Your task to perform on an android device: turn off javascript in the chrome app Image 0: 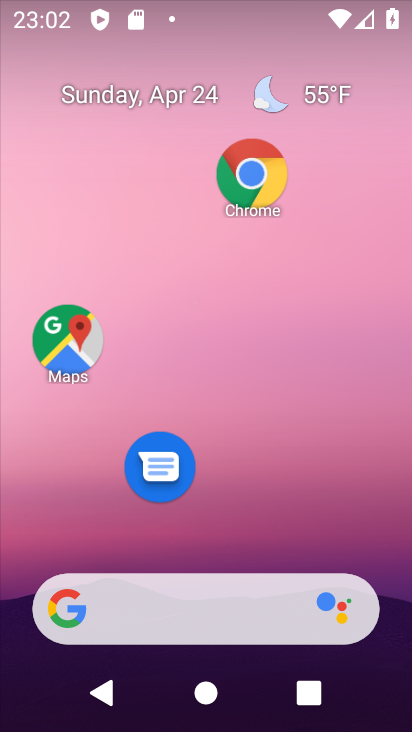
Step 0: click (248, 177)
Your task to perform on an android device: turn off javascript in the chrome app Image 1: 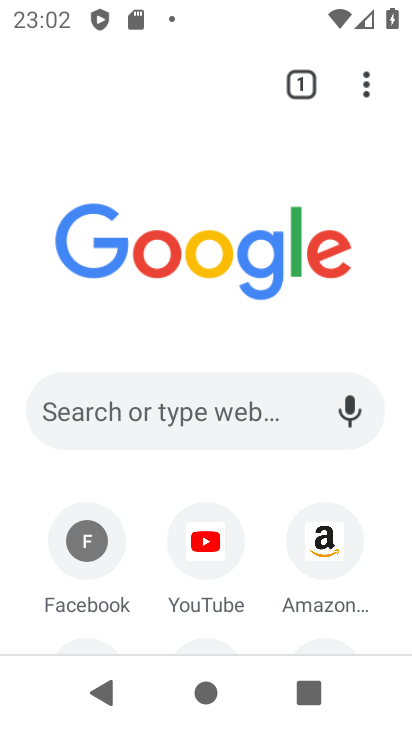
Step 1: click (359, 85)
Your task to perform on an android device: turn off javascript in the chrome app Image 2: 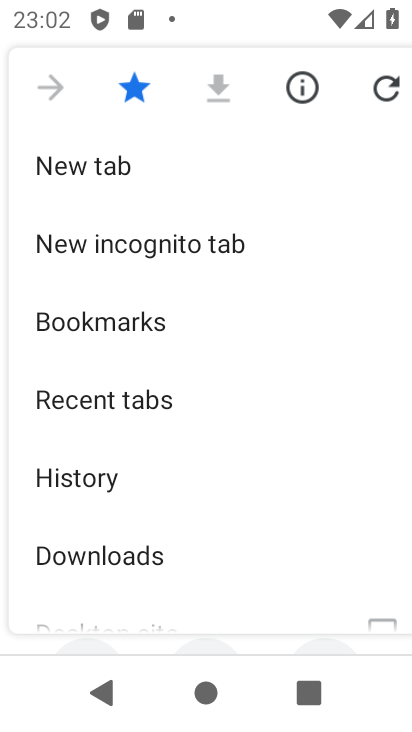
Step 2: drag from (167, 510) to (209, 179)
Your task to perform on an android device: turn off javascript in the chrome app Image 3: 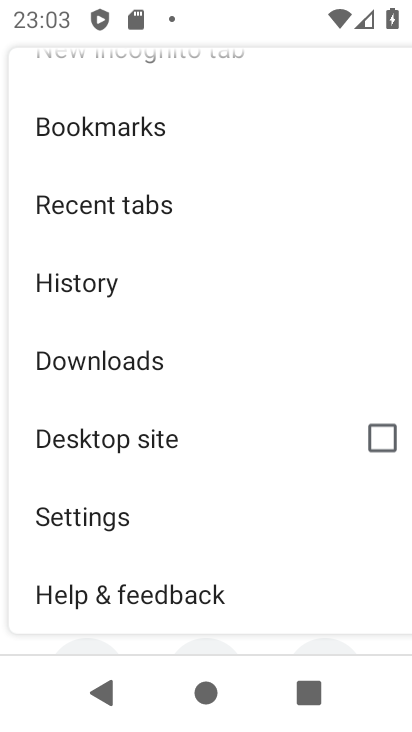
Step 3: click (124, 505)
Your task to perform on an android device: turn off javascript in the chrome app Image 4: 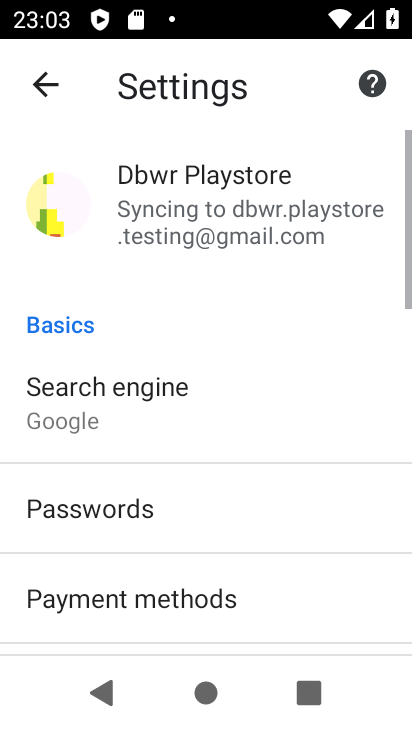
Step 4: drag from (249, 504) to (338, 42)
Your task to perform on an android device: turn off javascript in the chrome app Image 5: 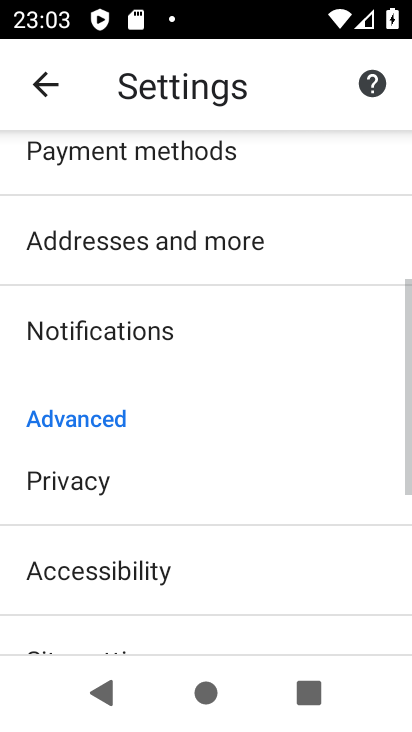
Step 5: drag from (153, 529) to (213, 207)
Your task to perform on an android device: turn off javascript in the chrome app Image 6: 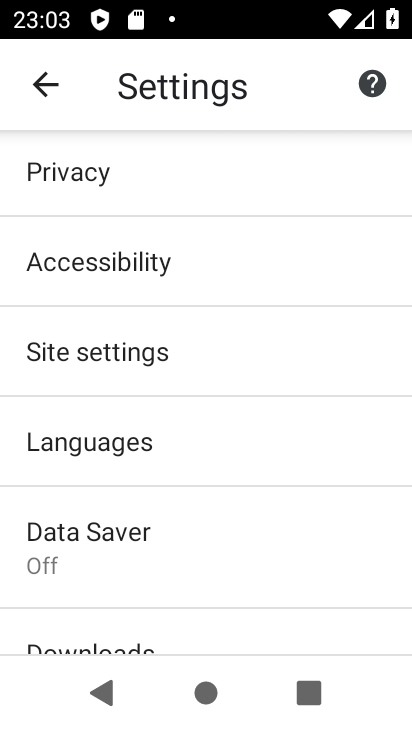
Step 6: click (123, 348)
Your task to perform on an android device: turn off javascript in the chrome app Image 7: 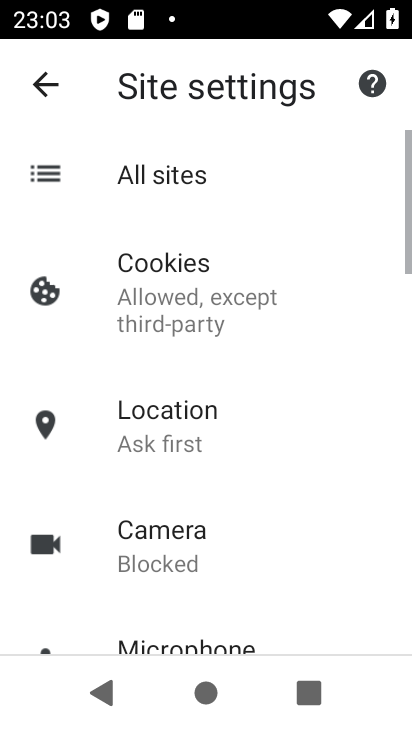
Step 7: drag from (202, 557) to (202, 211)
Your task to perform on an android device: turn off javascript in the chrome app Image 8: 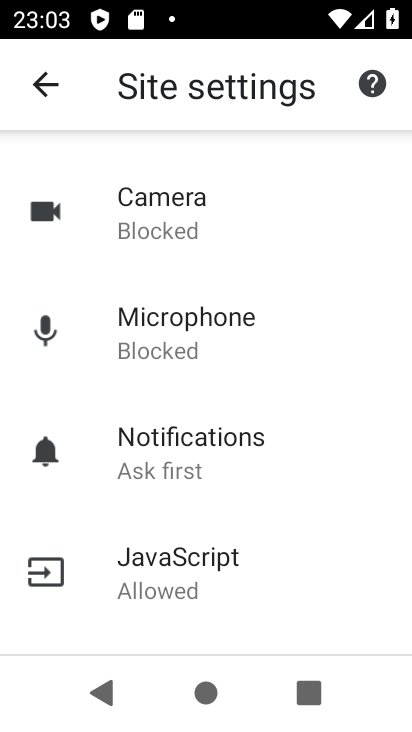
Step 8: click (188, 574)
Your task to perform on an android device: turn off javascript in the chrome app Image 9: 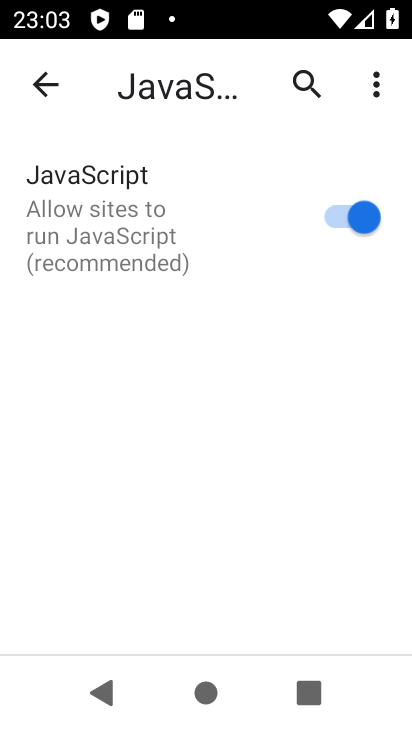
Step 9: click (362, 202)
Your task to perform on an android device: turn off javascript in the chrome app Image 10: 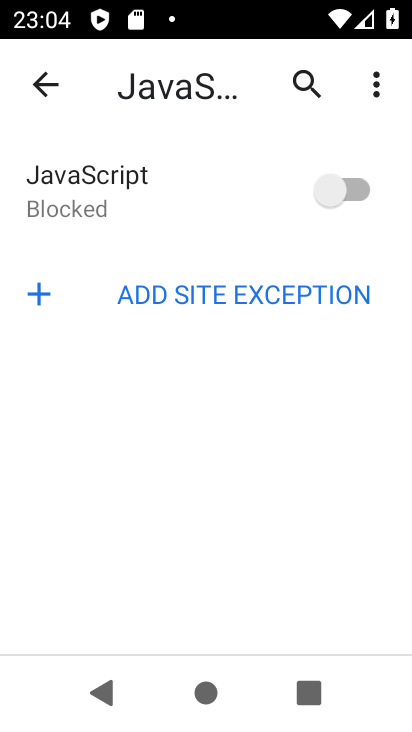
Step 10: task complete